Your task to perform on an android device: open wifi settings Image 0: 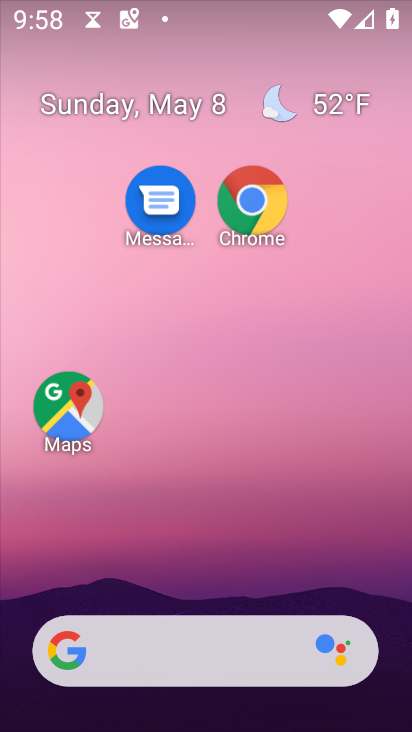
Step 0: drag from (214, 602) to (379, 359)
Your task to perform on an android device: open wifi settings Image 1: 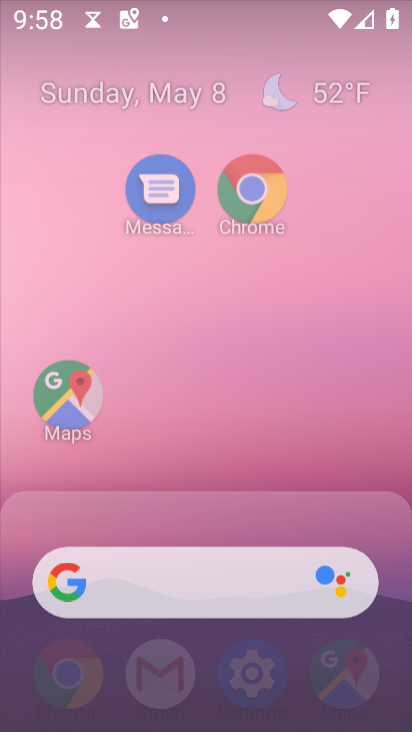
Step 1: click (252, 186)
Your task to perform on an android device: open wifi settings Image 2: 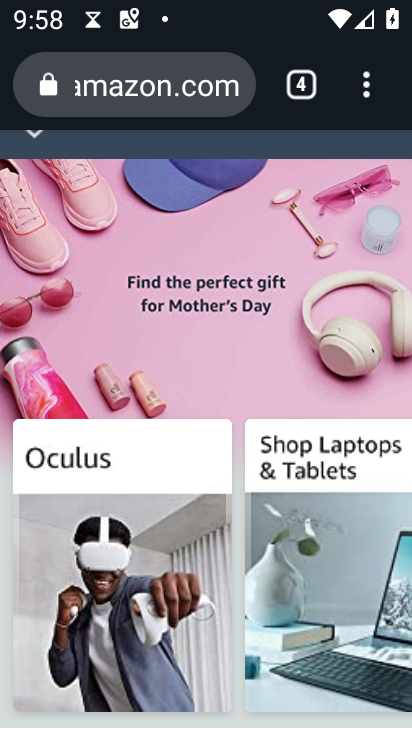
Step 2: press home button
Your task to perform on an android device: open wifi settings Image 3: 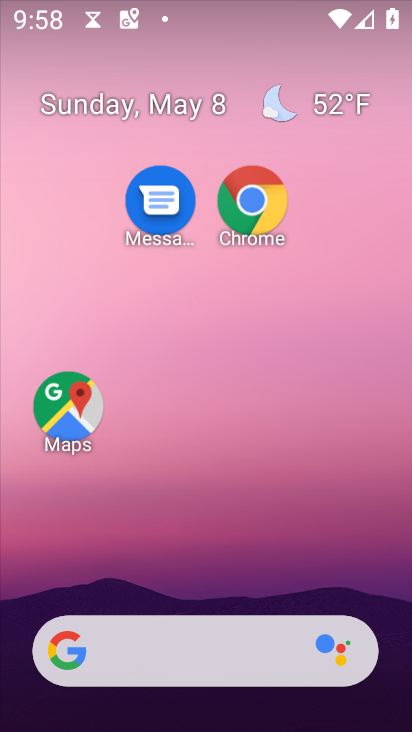
Step 3: drag from (209, 607) to (223, 35)
Your task to perform on an android device: open wifi settings Image 4: 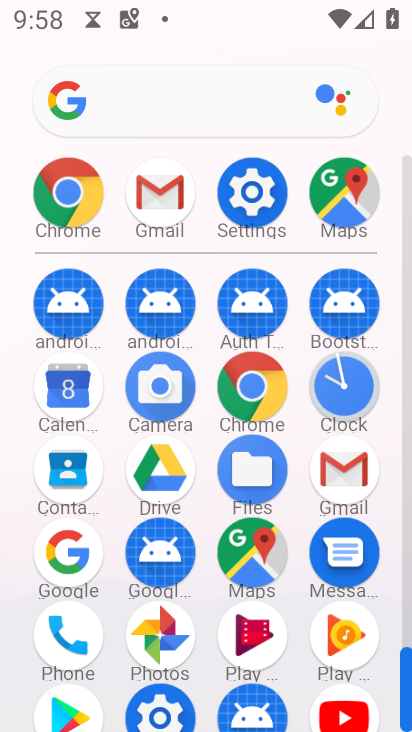
Step 4: click (266, 206)
Your task to perform on an android device: open wifi settings Image 5: 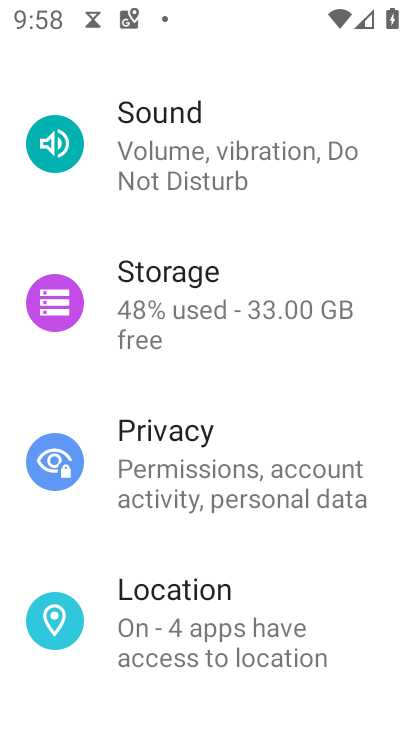
Step 5: drag from (235, 576) to (228, 698)
Your task to perform on an android device: open wifi settings Image 6: 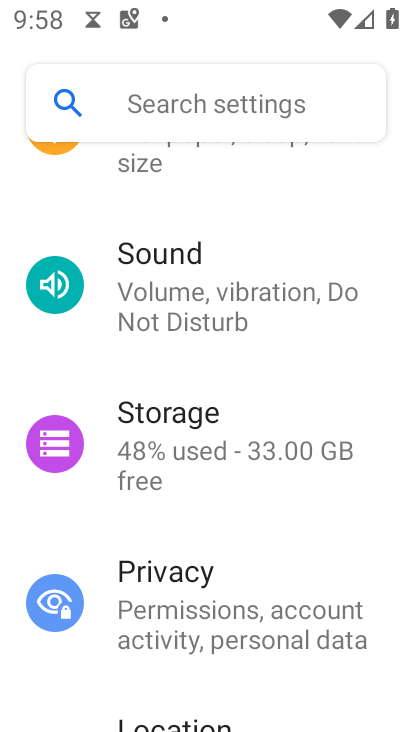
Step 6: drag from (211, 138) to (179, 717)
Your task to perform on an android device: open wifi settings Image 7: 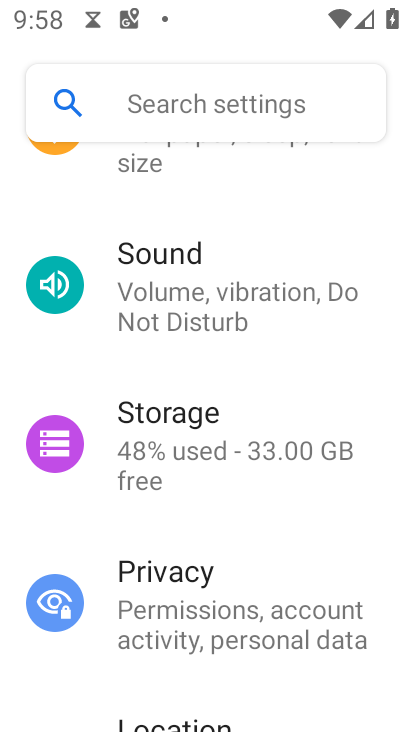
Step 7: drag from (158, 351) to (170, 693)
Your task to perform on an android device: open wifi settings Image 8: 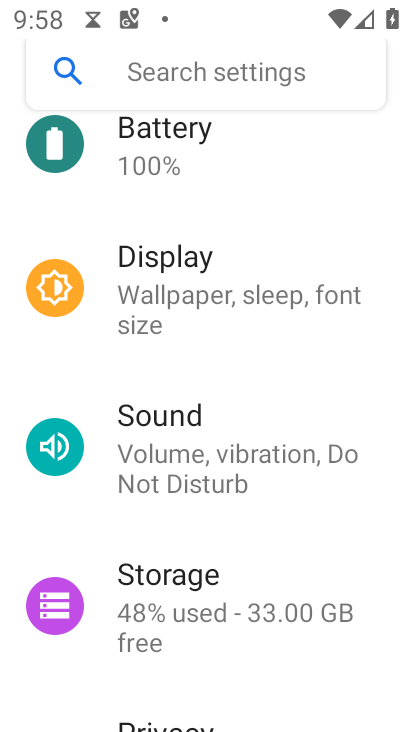
Step 8: drag from (170, 189) to (91, 706)
Your task to perform on an android device: open wifi settings Image 9: 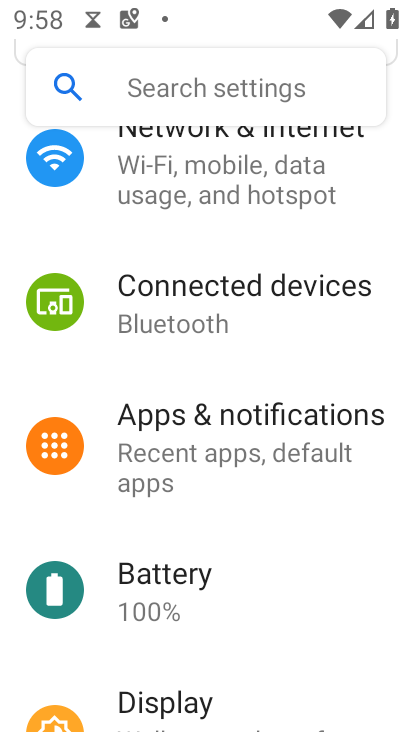
Step 9: click (191, 196)
Your task to perform on an android device: open wifi settings Image 10: 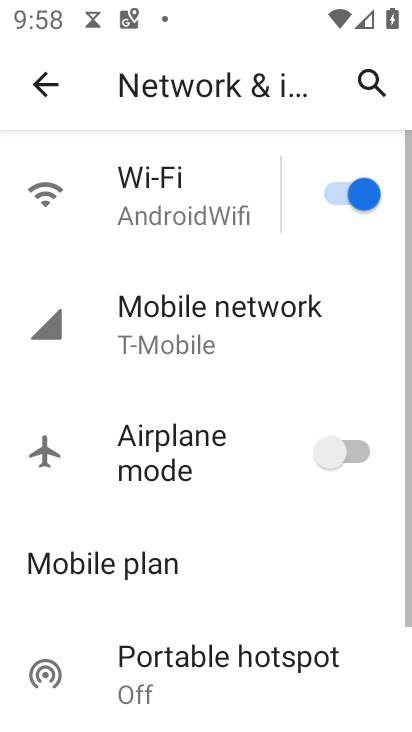
Step 10: click (177, 182)
Your task to perform on an android device: open wifi settings Image 11: 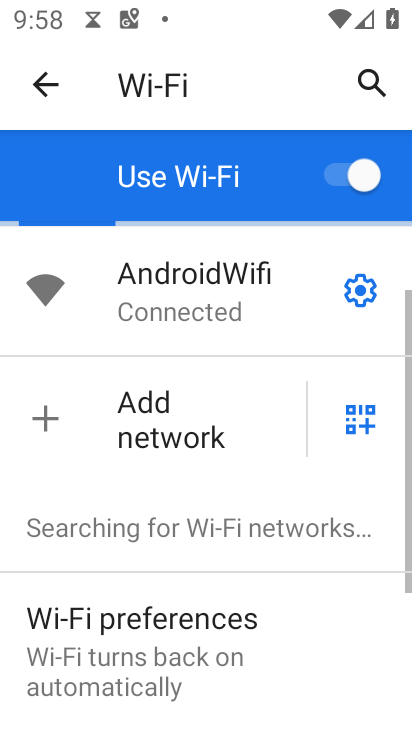
Step 11: task complete